Your task to perform on an android device: Do I have any events tomorrow? Image 0: 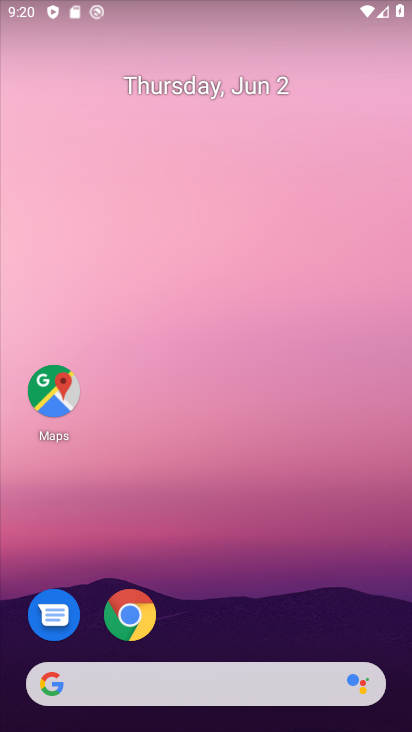
Step 0: drag from (226, 617) to (298, 125)
Your task to perform on an android device: Do I have any events tomorrow? Image 1: 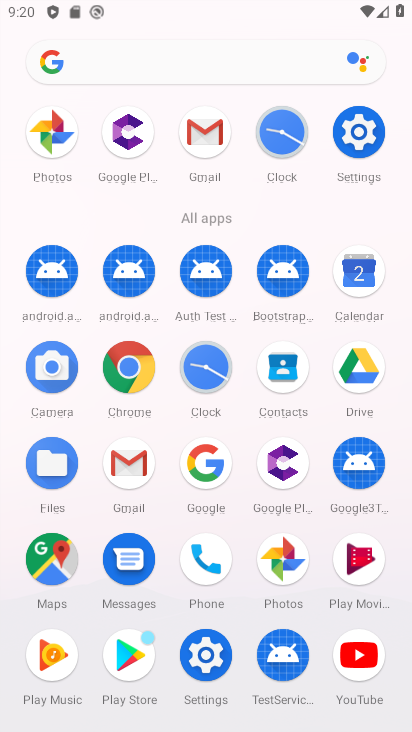
Step 1: click (358, 276)
Your task to perform on an android device: Do I have any events tomorrow? Image 2: 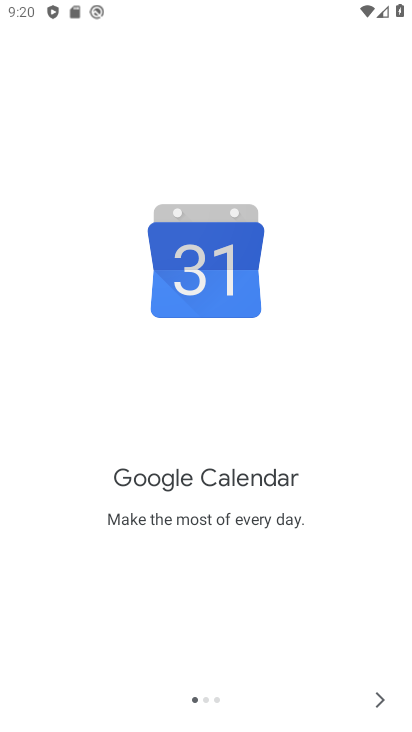
Step 2: click (383, 697)
Your task to perform on an android device: Do I have any events tomorrow? Image 3: 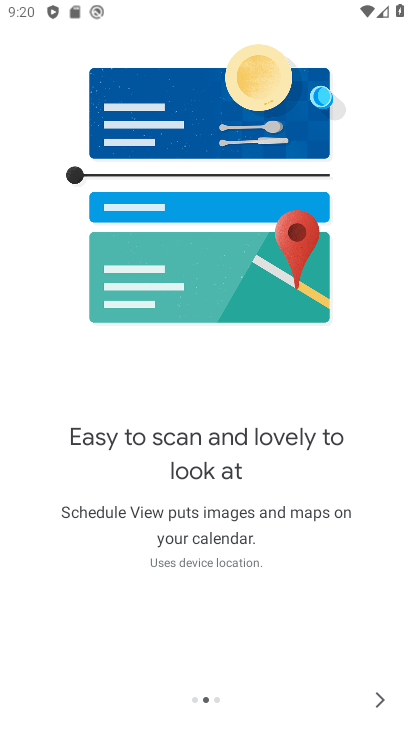
Step 3: click (383, 697)
Your task to perform on an android device: Do I have any events tomorrow? Image 4: 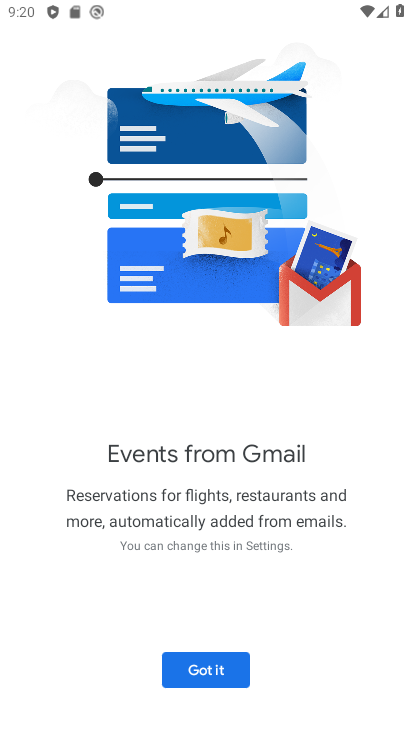
Step 4: click (223, 680)
Your task to perform on an android device: Do I have any events tomorrow? Image 5: 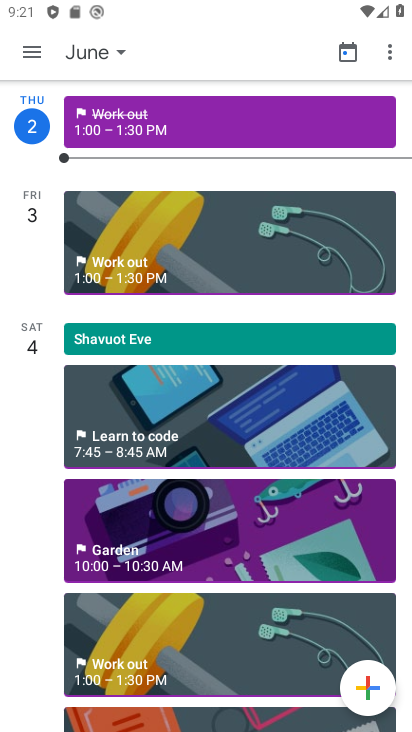
Step 5: click (116, 56)
Your task to perform on an android device: Do I have any events tomorrow? Image 6: 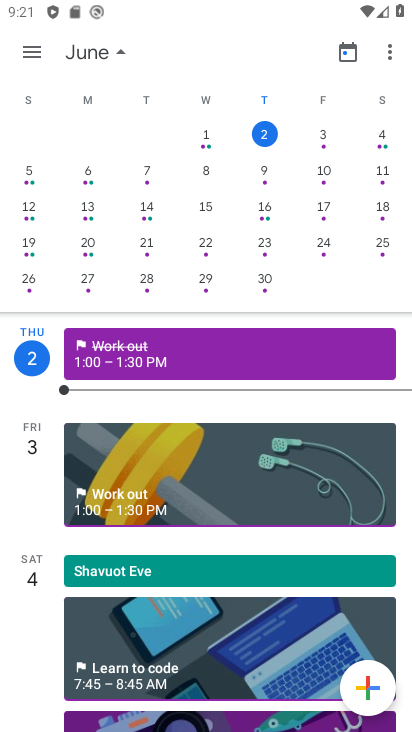
Step 6: click (317, 142)
Your task to perform on an android device: Do I have any events tomorrow? Image 7: 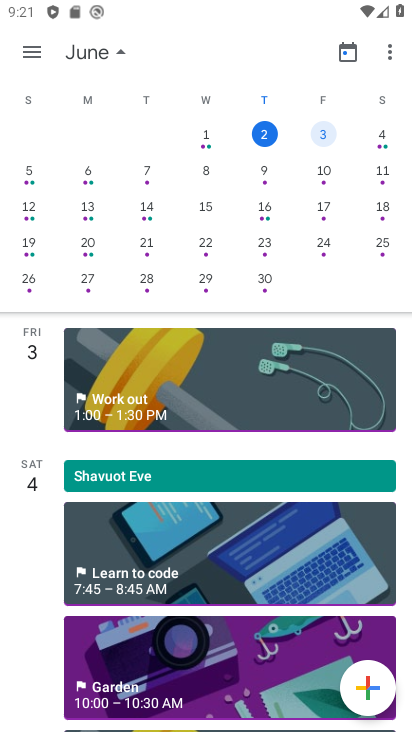
Step 7: task complete